Your task to perform on an android device: allow cookies in the chrome app Image 0: 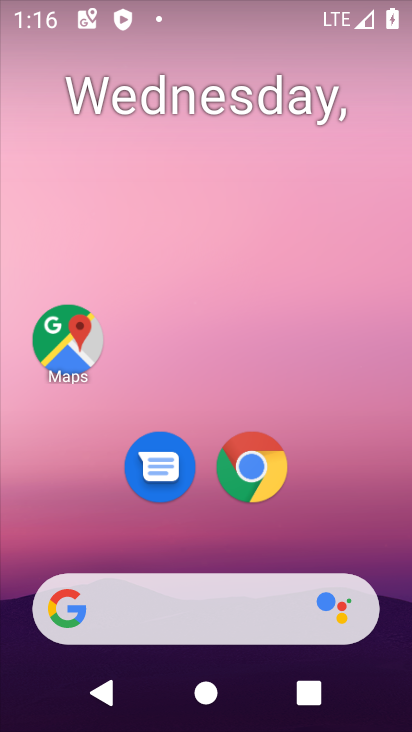
Step 0: drag from (206, 527) to (205, 84)
Your task to perform on an android device: allow cookies in the chrome app Image 1: 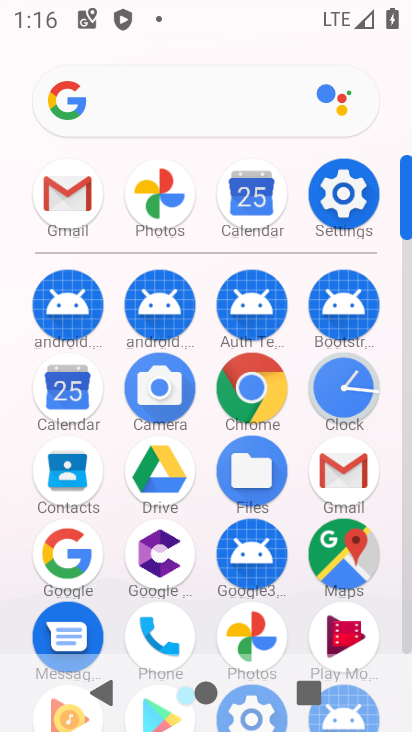
Step 1: click (255, 385)
Your task to perform on an android device: allow cookies in the chrome app Image 2: 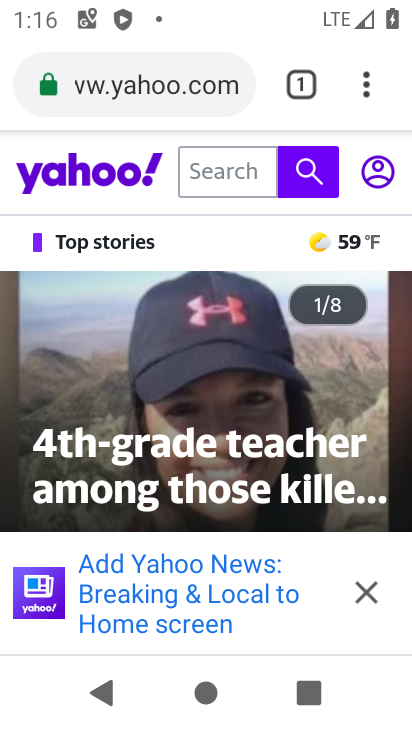
Step 2: click (353, 87)
Your task to perform on an android device: allow cookies in the chrome app Image 3: 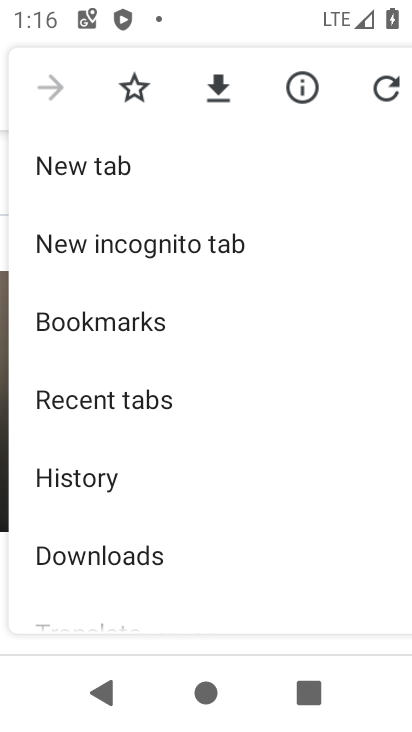
Step 3: drag from (157, 689) to (242, 242)
Your task to perform on an android device: allow cookies in the chrome app Image 4: 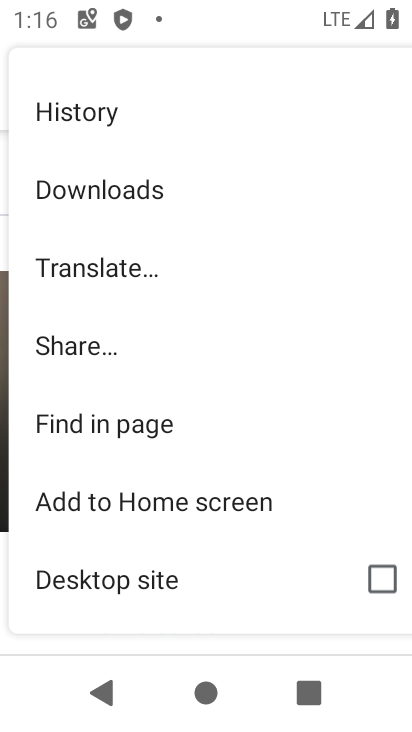
Step 4: drag from (208, 508) to (254, 129)
Your task to perform on an android device: allow cookies in the chrome app Image 5: 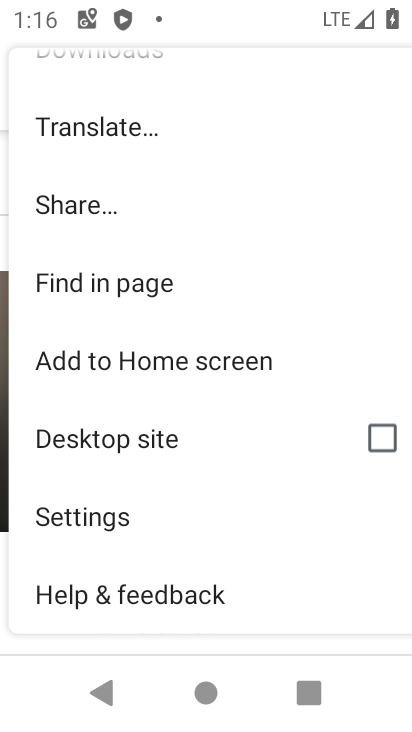
Step 5: click (185, 497)
Your task to perform on an android device: allow cookies in the chrome app Image 6: 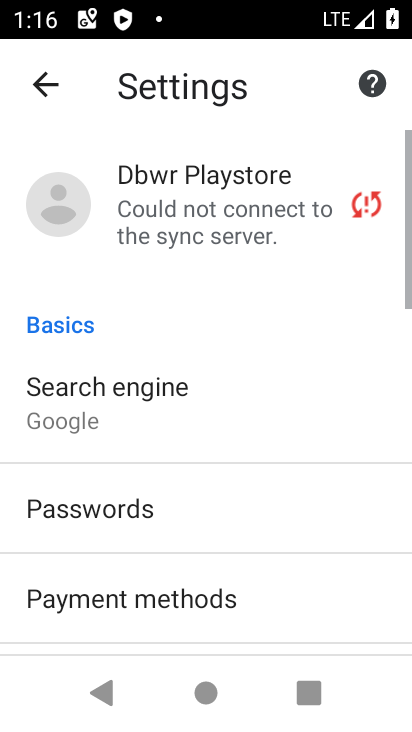
Step 6: drag from (235, 605) to (270, 227)
Your task to perform on an android device: allow cookies in the chrome app Image 7: 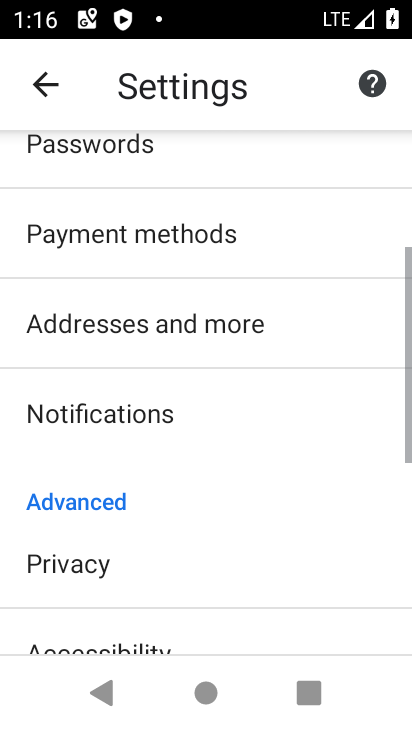
Step 7: drag from (284, 545) to (264, 215)
Your task to perform on an android device: allow cookies in the chrome app Image 8: 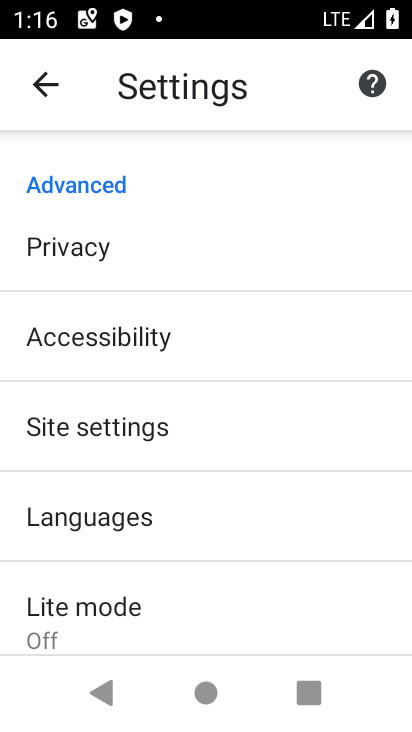
Step 8: click (152, 433)
Your task to perform on an android device: allow cookies in the chrome app Image 9: 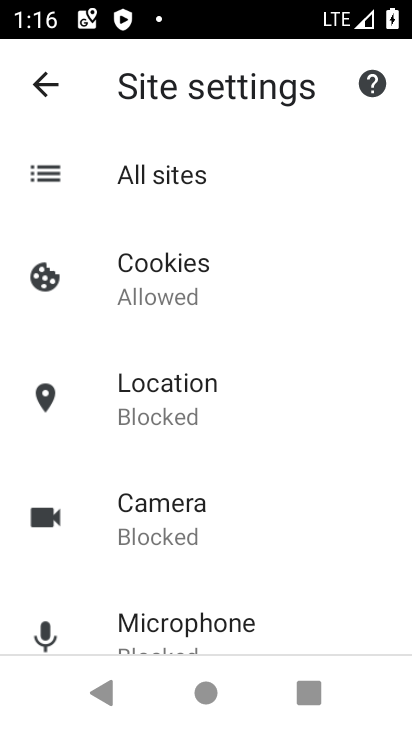
Step 9: click (195, 271)
Your task to perform on an android device: allow cookies in the chrome app Image 10: 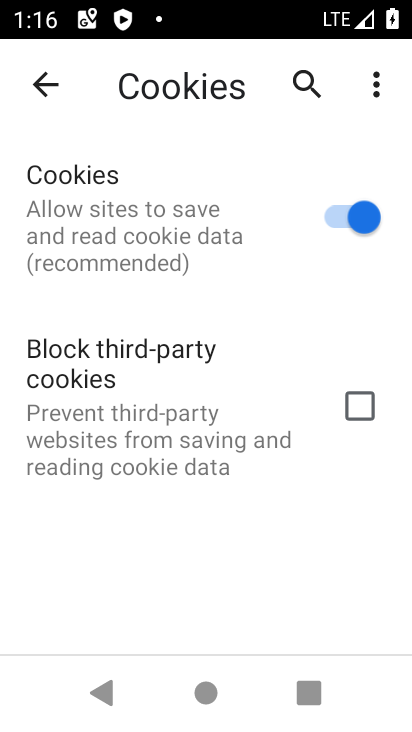
Step 10: task complete